Your task to perform on an android device: Open the calendar and show me this week's events? Image 0: 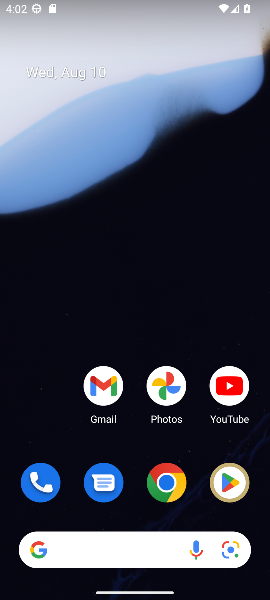
Step 0: drag from (64, 423) to (87, 100)
Your task to perform on an android device: Open the calendar and show me this week's events? Image 1: 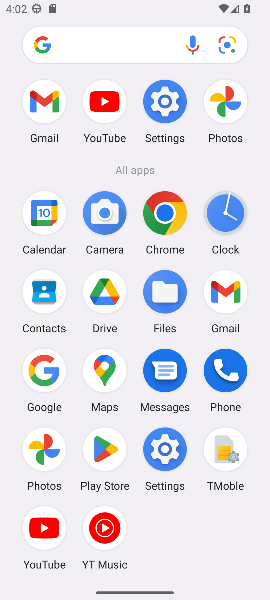
Step 1: click (43, 206)
Your task to perform on an android device: Open the calendar and show me this week's events? Image 2: 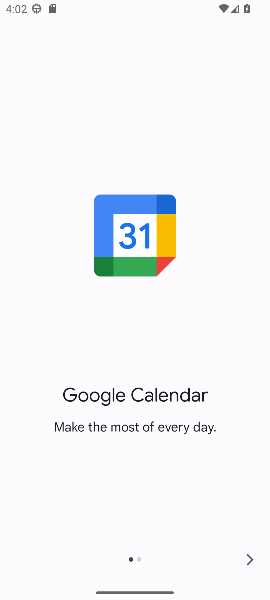
Step 2: click (251, 555)
Your task to perform on an android device: Open the calendar and show me this week's events? Image 3: 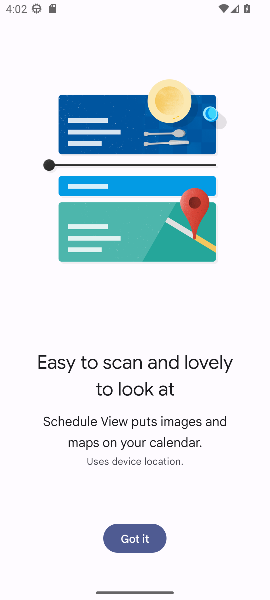
Step 3: click (153, 537)
Your task to perform on an android device: Open the calendar and show me this week's events? Image 4: 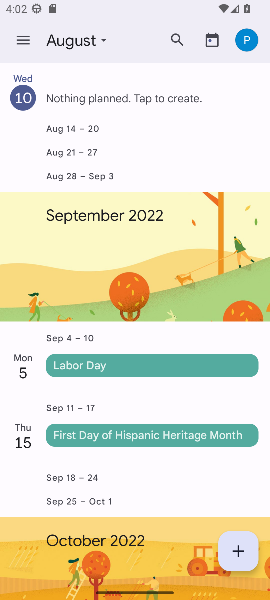
Step 4: click (25, 43)
Your task to perform on an android device: Open the calendar and show me this week's events? Image 5: 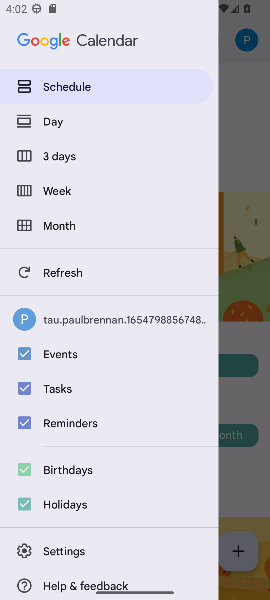
Step 5: click (22, 186)
Your task to perform on an android device: Open the calendar and show me this week's events? Image 6: 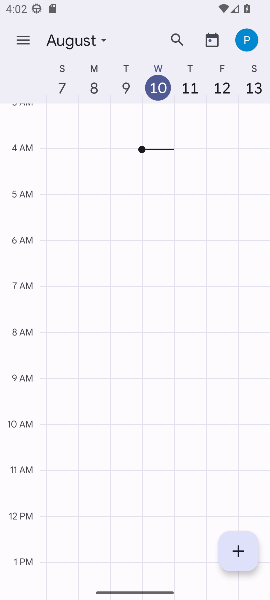
Step 6: task complete